Your task to perform on an android device: Open Chrome and go to settings Image 0: 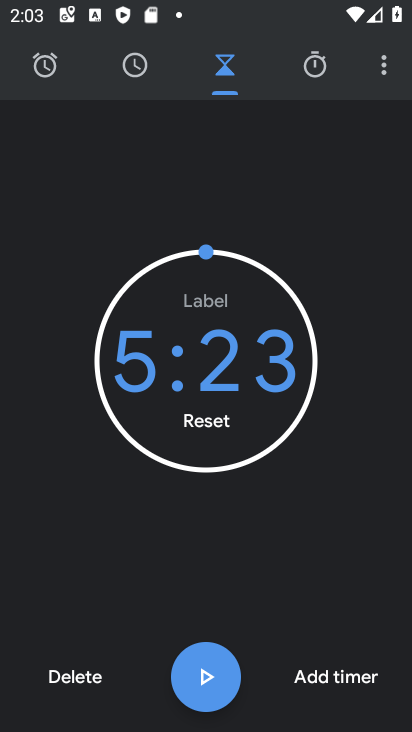
Step 0: click (316, 529)
Your task to perform on an android device: Open Chrome and go to settings Image 1: 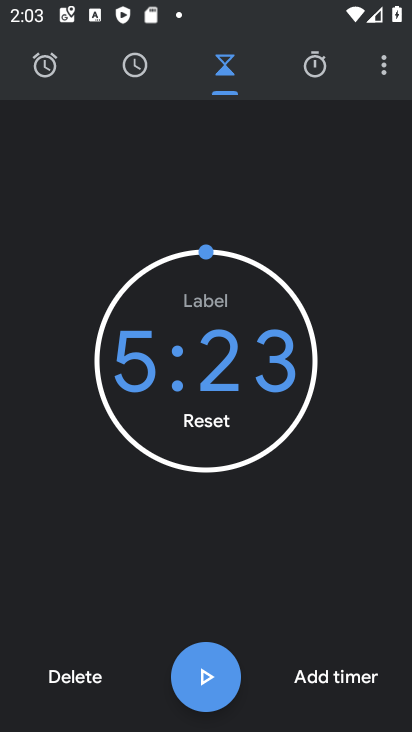
Step 1: press home button
Your task to perform on an android device: Open Chrome and go to settings Image 2: 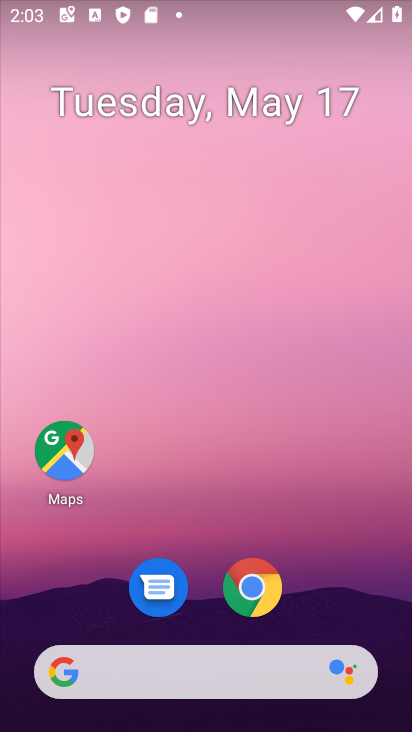
Step 2: drag from (209, 612) to (335, 110)
Your task to perform on an android device: Open Chrome and go to settings Image 3: 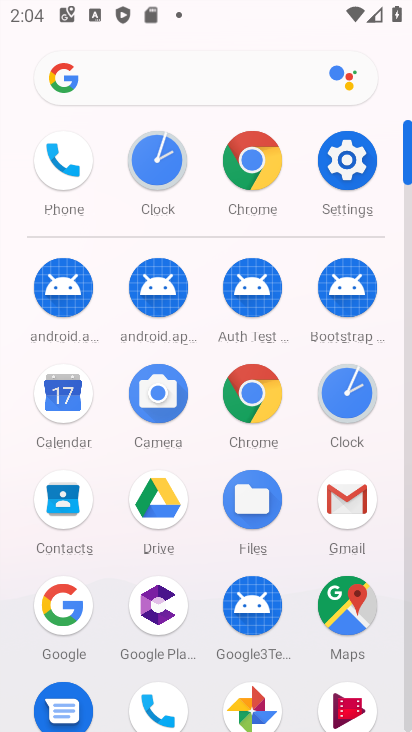
Step 3: click (256, 159)
Your task to perform on an android device: Open Chrome and go to settings Image 4: 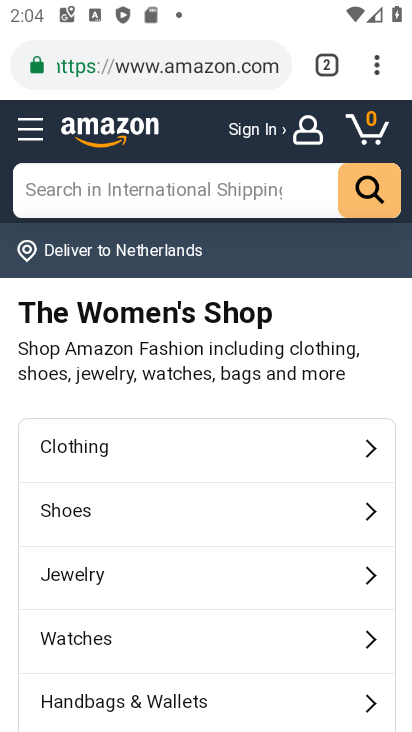
Step 4: click (377, 60)
Your task to perform on an android device: Open Chrome and go to settings Image 5: 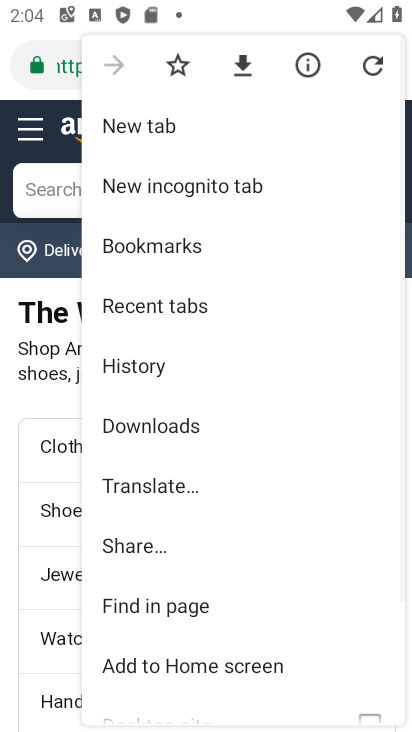
Step 5: drag from (197, 593) to (269, 66)
Your task to perform on an android device: Open Chrome and go to settings Image 6: 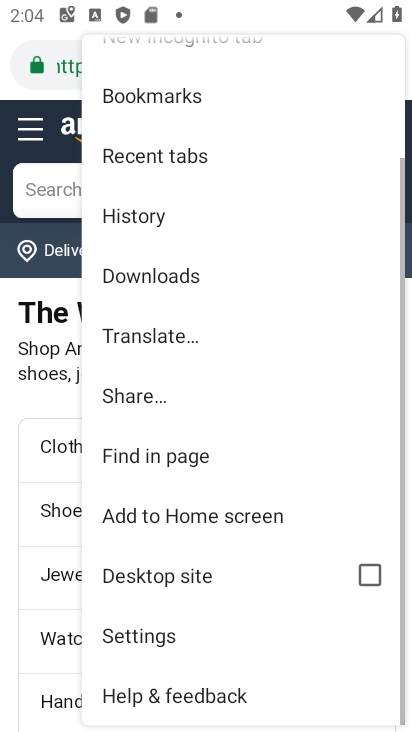
Step 6: click (163, 637)
Your task to perform on an android device: Open Chrome and go to settings Image 7: 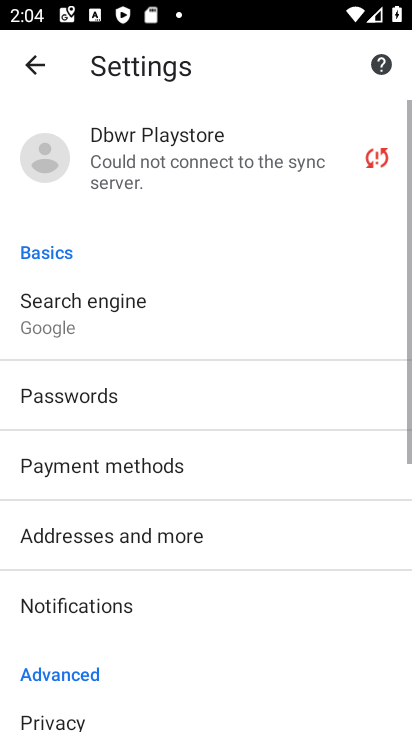
Step 7: task complete